Your task to perform on an android device: Open Amazon Image 0: 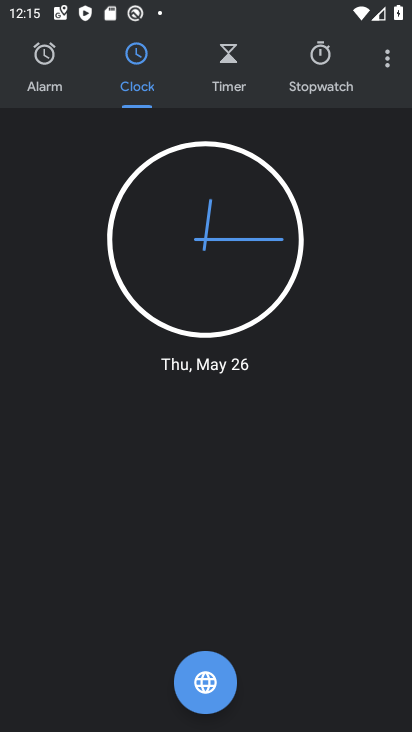
Step 0: press home button
Your task to perform on an android device: Open Amazon Image 1: 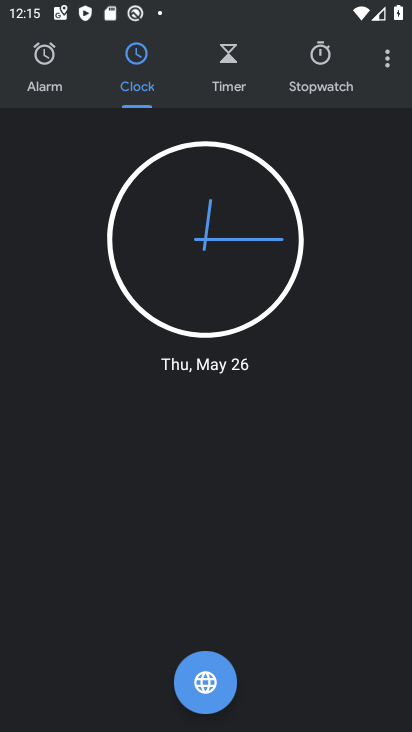
Step 1: press home button
Your task to perform on an android device: Open Amazon Image 2: 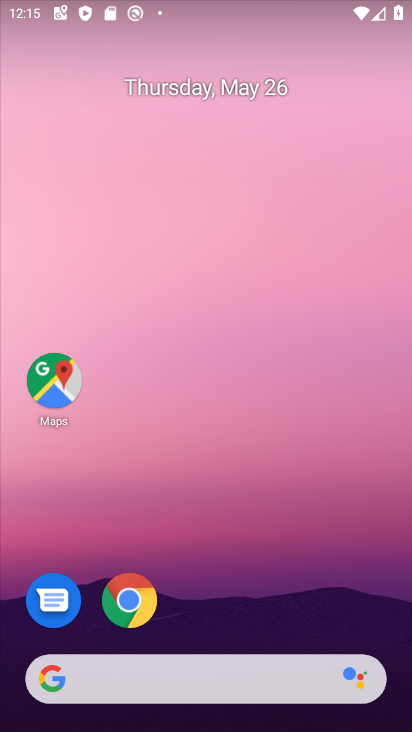
Step 2: click (131, 617)
Your task to perform on an android device: Open Amazon Image 3: 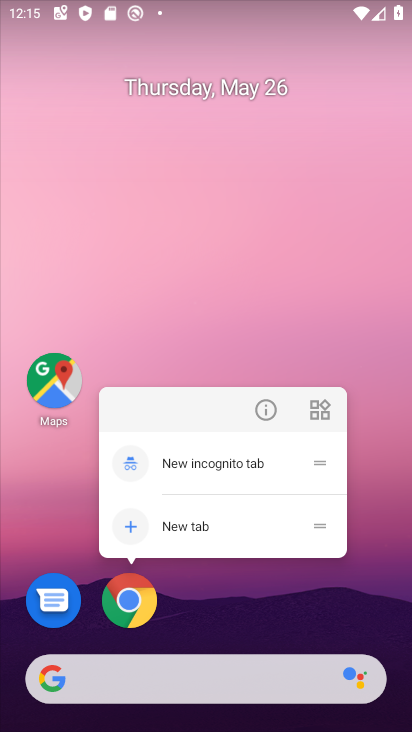
Step 3: click (128, 603)
Your task to perform on an android device: Open Amazon Image 4: 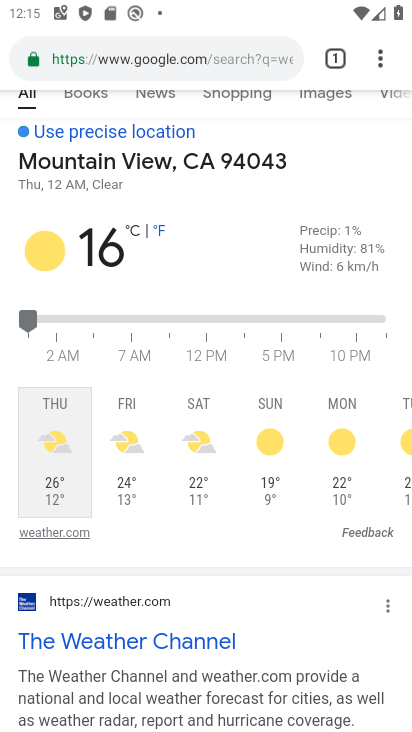
Step 4: click (191, 53)
Your task to perform on an android device: Open Amazon Image 5: 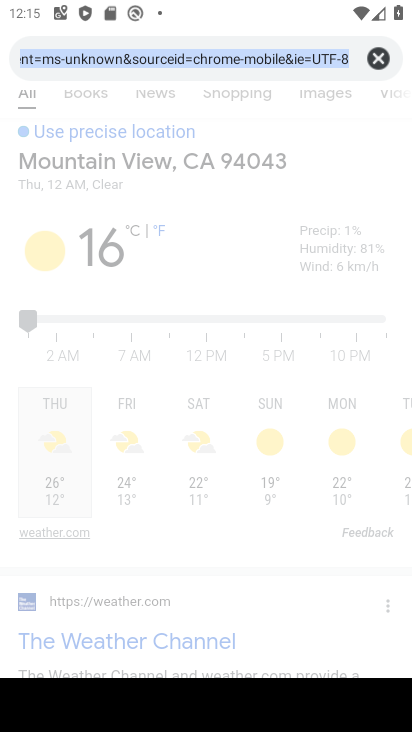
Step 5: type "amazon"
Your task to perform on an android device: Open Amazon Image 6: 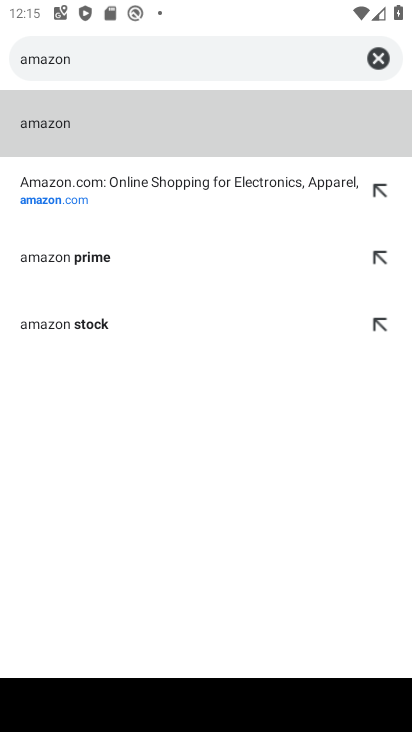
Step 6: click (64, 199)
Your task to perform on an android device: Open Amazon Image 7: 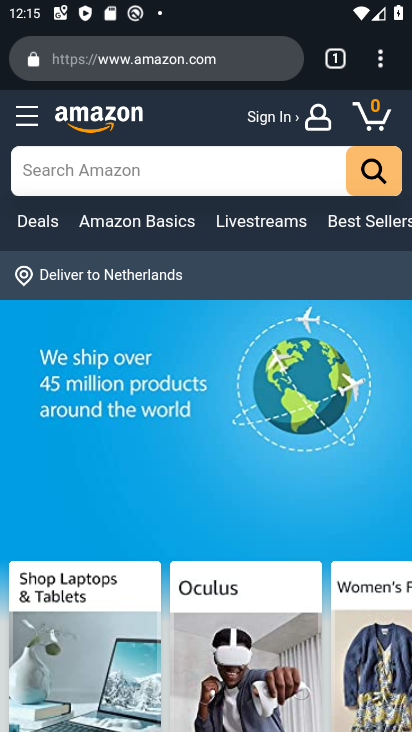
Step 7: task complete